Your task to perform on an android device: turn off picture-in-picture Image 0: 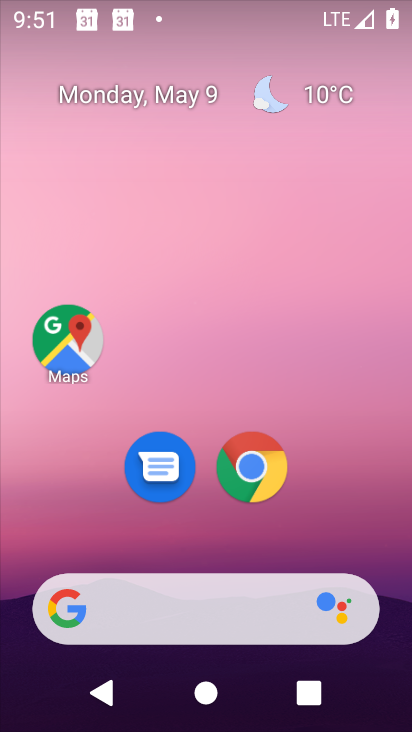
Step 0: click (265, 474)
Your task to perform on an android device: turn off picture-in-picture Image 1: 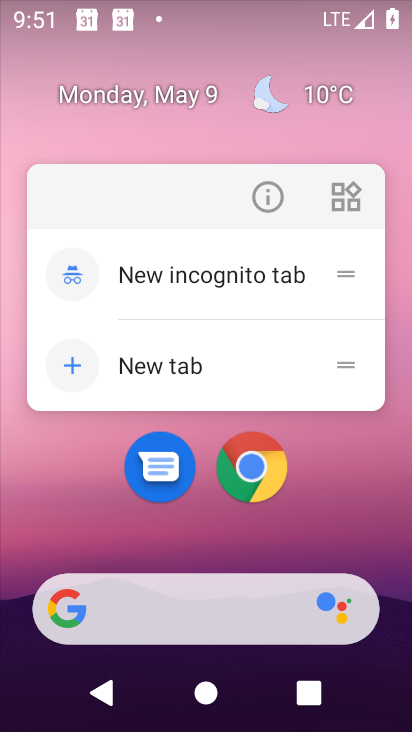
Step 1: click (267, 206)
Your task to perform on an android device: turn off picture-in-picture Image 2: 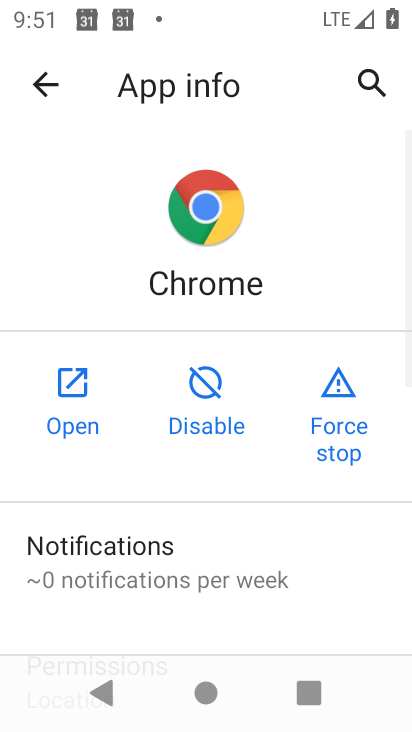
Step 2: drag from (270, 534) to (242, 12)
Your task to perform on an android device: turn off picture-in-picture Image 3: 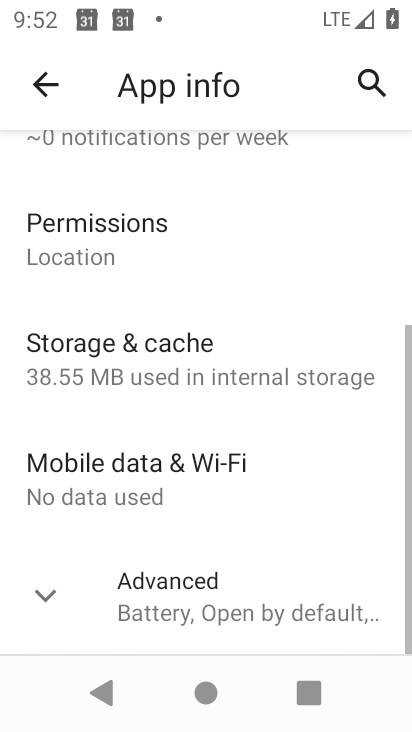
Step 3: drag from (113, 425) to (137, 66)
Your task to perform on an android device: turn off picture-in-picture Image 4: 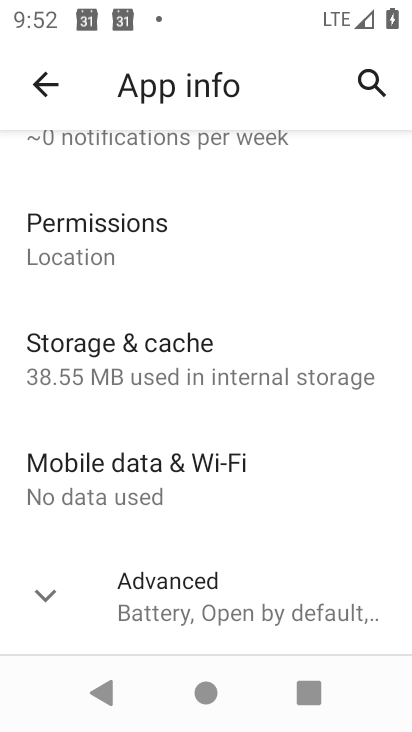
Step 4: click (45, 610)
Your task to perform on an android device: turn off picture-in-picture Image 5: 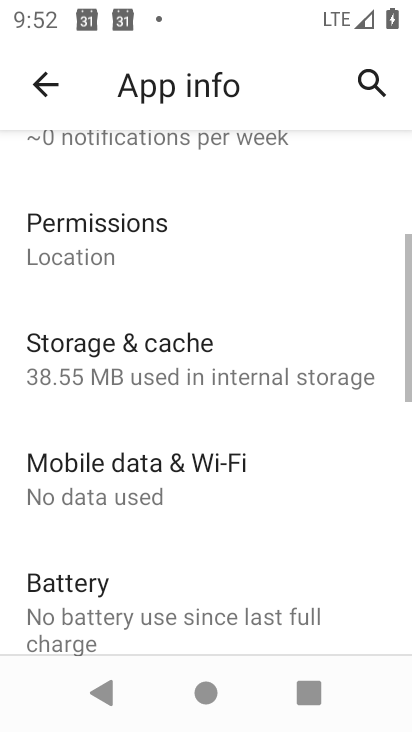
Step 5: drag from (174, 597) to (160, 33)
Your task to perform on an android device: turn off picture-in-picture Image 6: 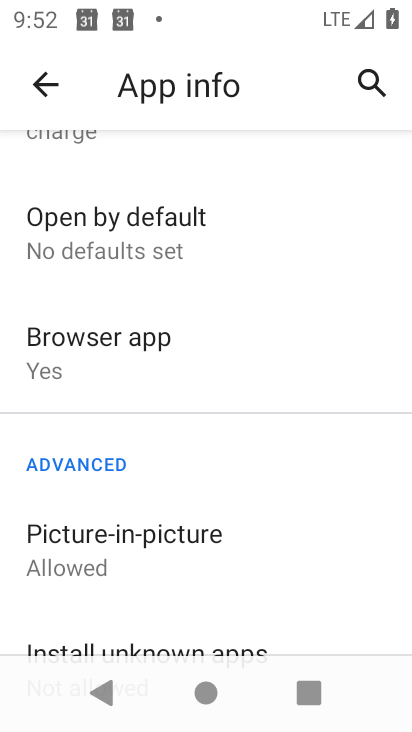
Step 6: click (117, 544)
Your task to perform on an android device: turn off picture-in-picture Image 7: 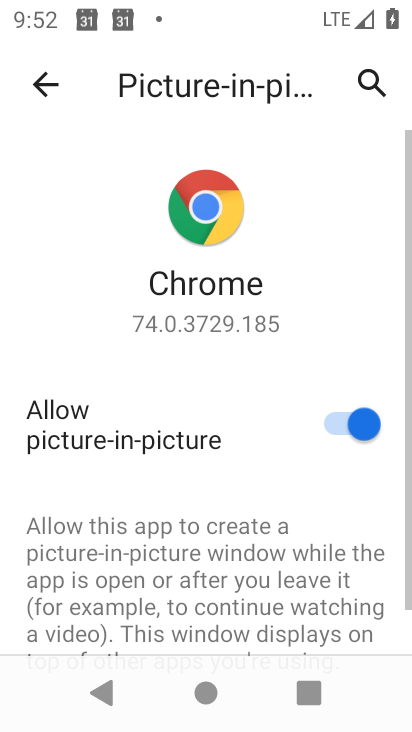
Step 7: click (368, 419)
Your task to perform on an android device: turn off picture-in-picture Image 8: 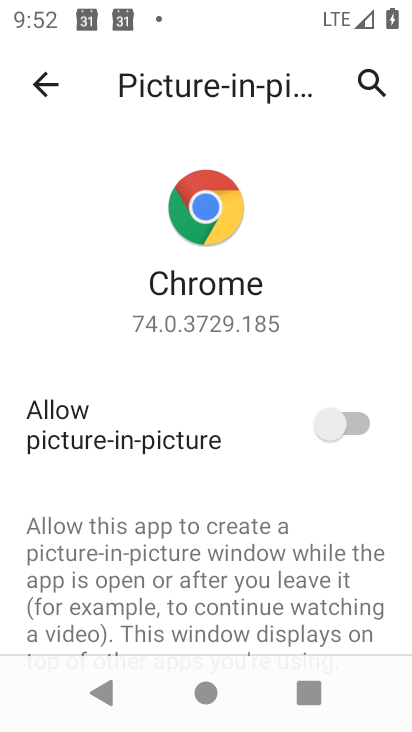
Step 8: task complete